Your task to perform on an android device: What's the news in Puerto Rico? Image 0: 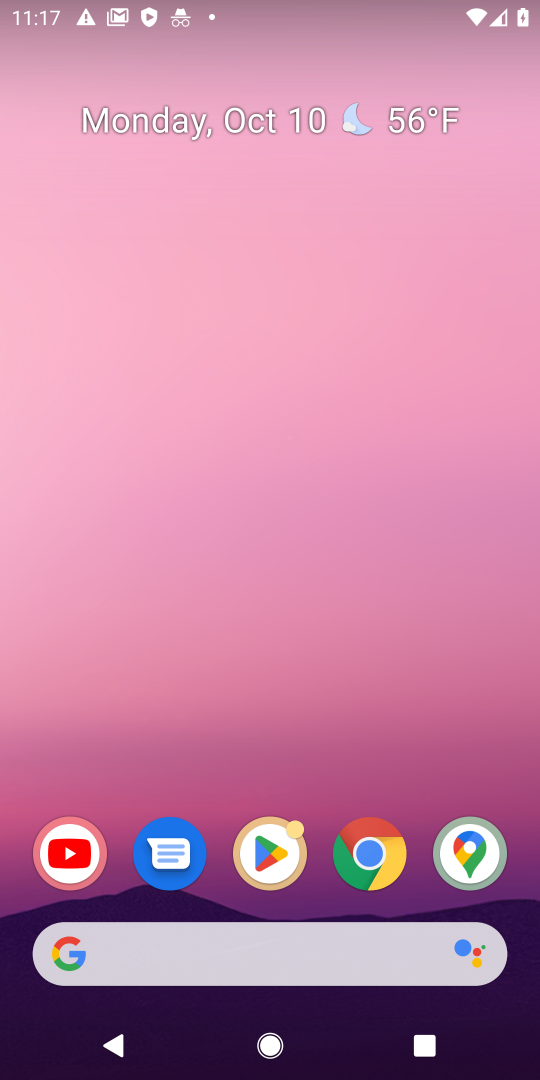
Step 0: press home button
Your task to perform on an android device: What's the news in Puerto Rico? Image 1: 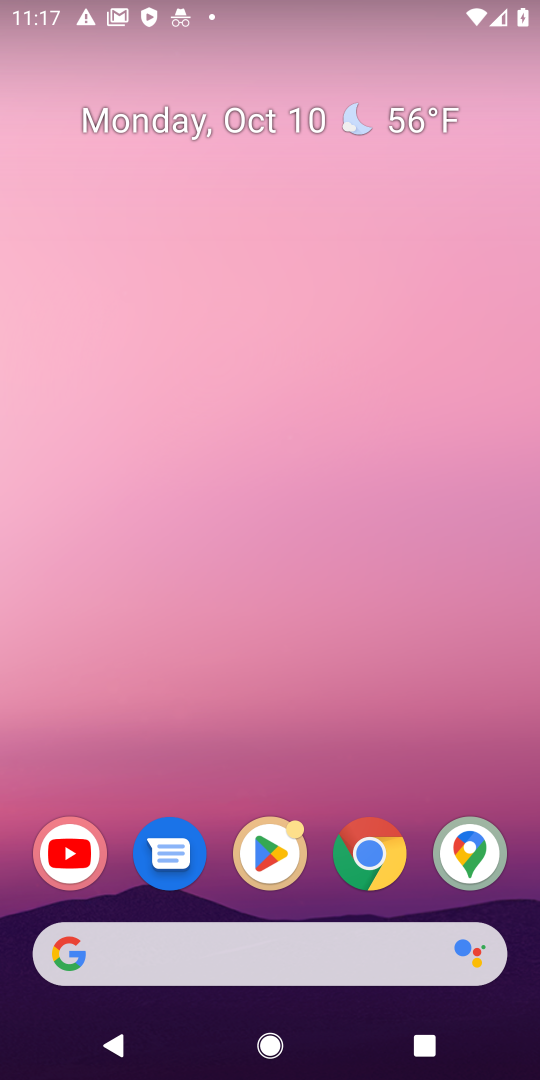
Step 1: click (130, 958)
Your task to perform on an android device: What's the news in Puerto Rico? Image 2: 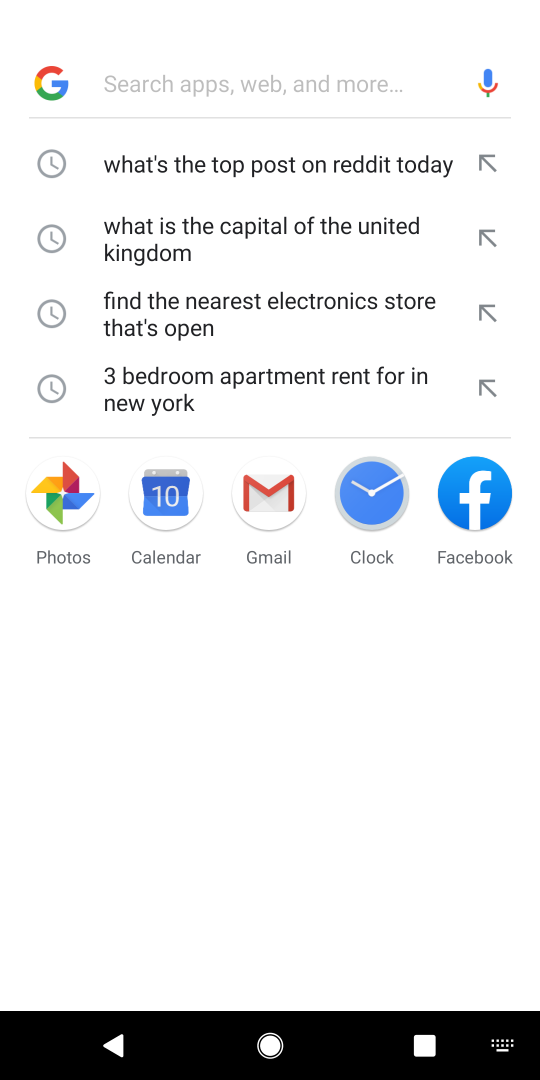
Step 2: type "What's the news in Puerto Rico"
Your task to perform on an android device: What's the news in Puerto Rico? Image 3: 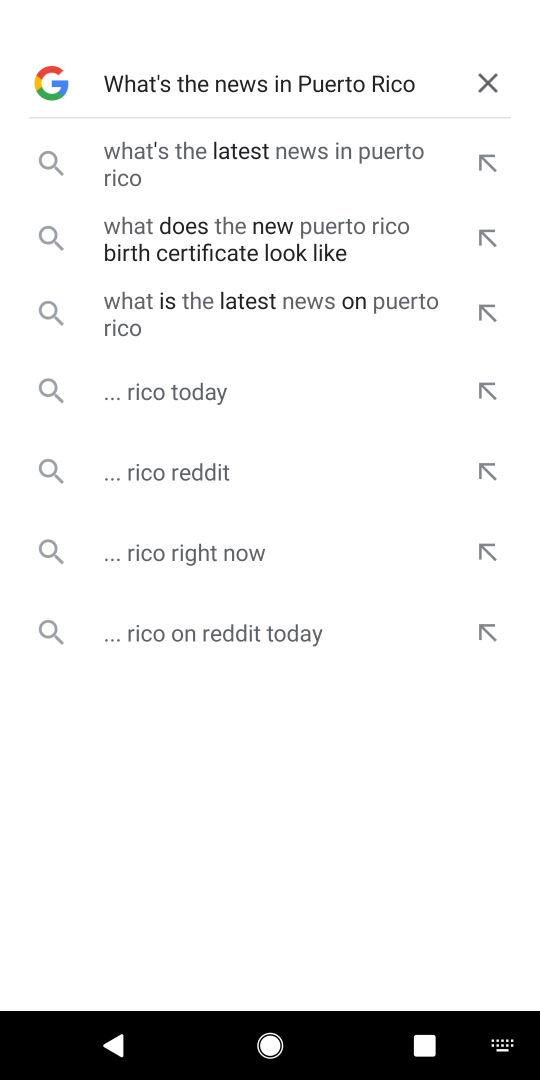
Step 3: press enter
Your task to perform on an android device: What's the news in Puerto Rico? Image 4: 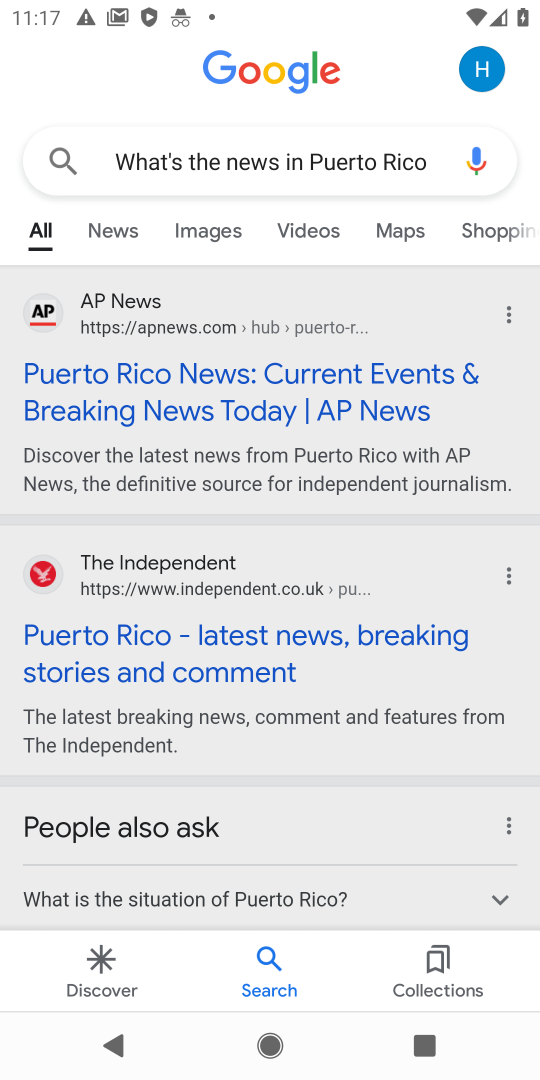
Step 4: drag from (328, 743) to (329, 596)
Your task to perform on an android device: What's the news in Puerto Rico? Image 5: 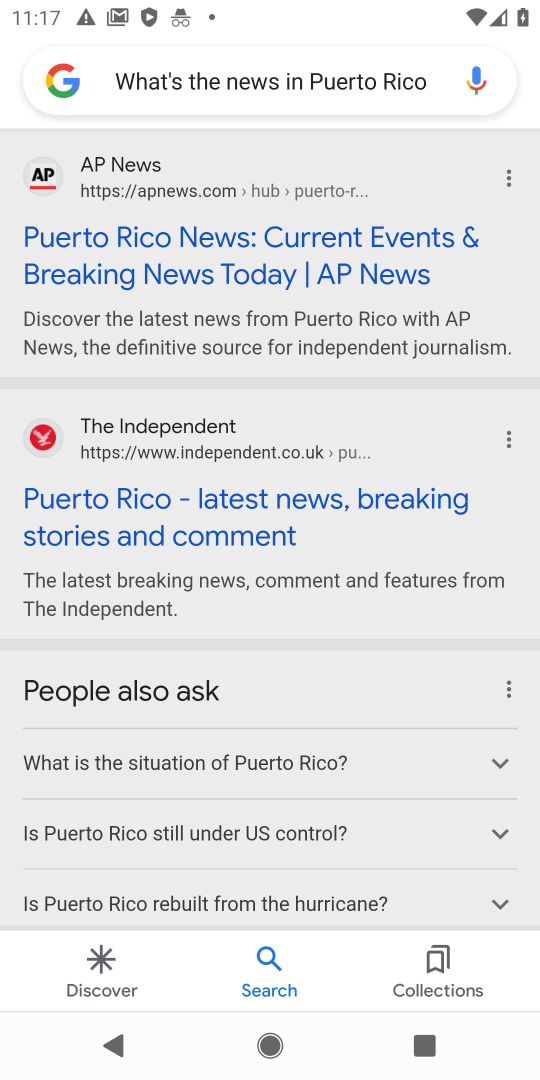
Step 5: click (350, 271)
Your task to perform on an android device: What's the news in Puerto Rico? Image 6: 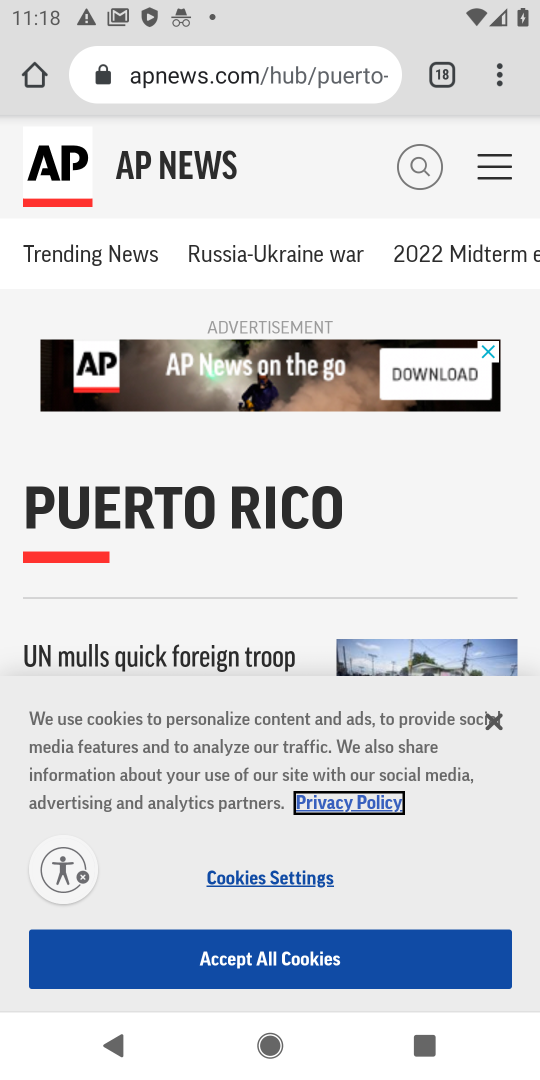
Step 6: click (366, 969)
Your task to perform on an android device: What's the news in Puerto Rico? Image 7: 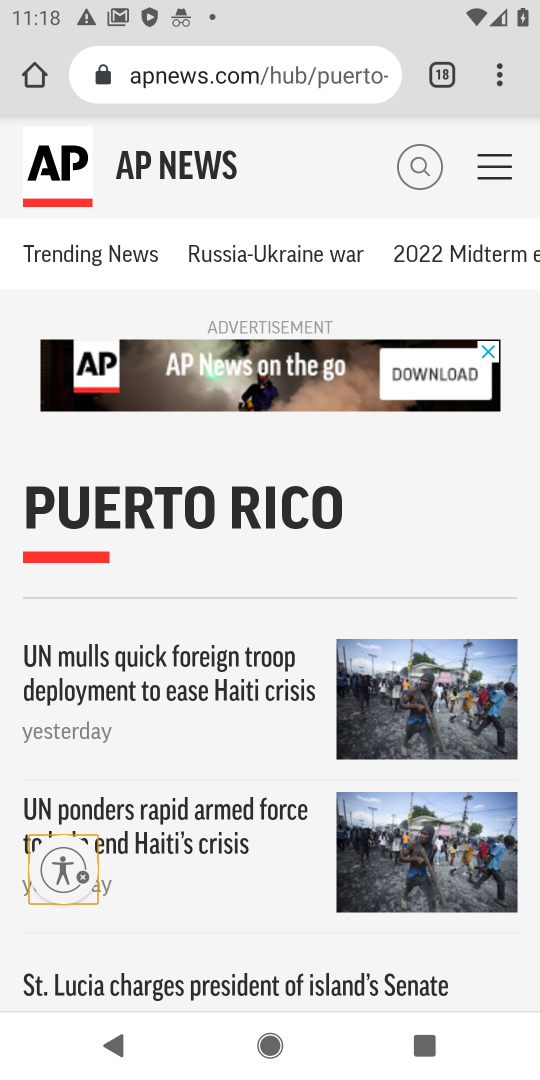
Step 7: task complete